Your task to perform on an android device: turn smart compose on in the gmail app Image 0: 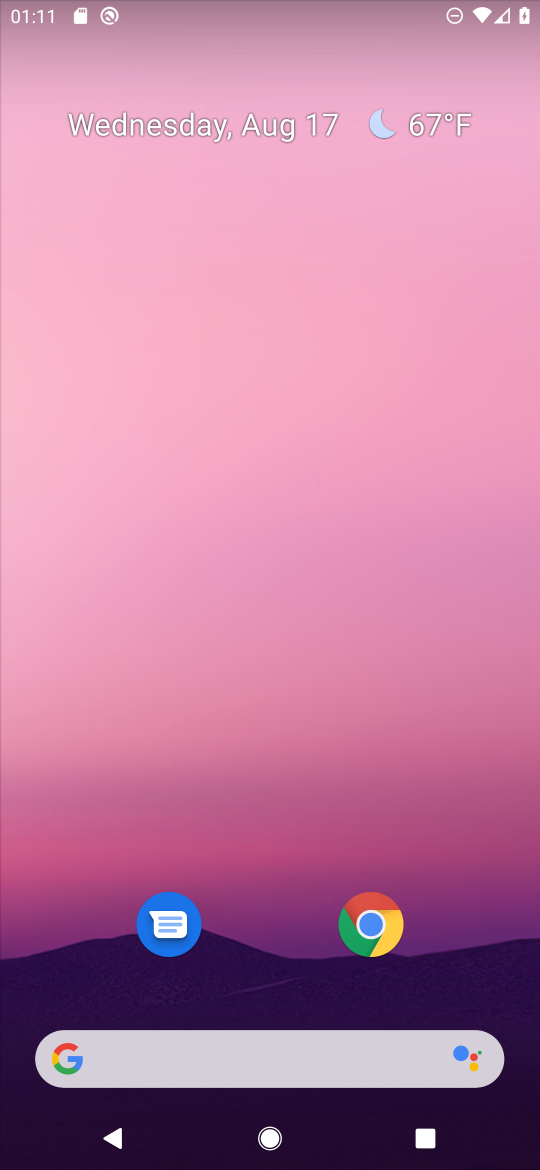
Step 0: drag from (259, 986) to (195, 153)
Your task to perform on an android device: turn smart compose on in the gmail app Image 1: 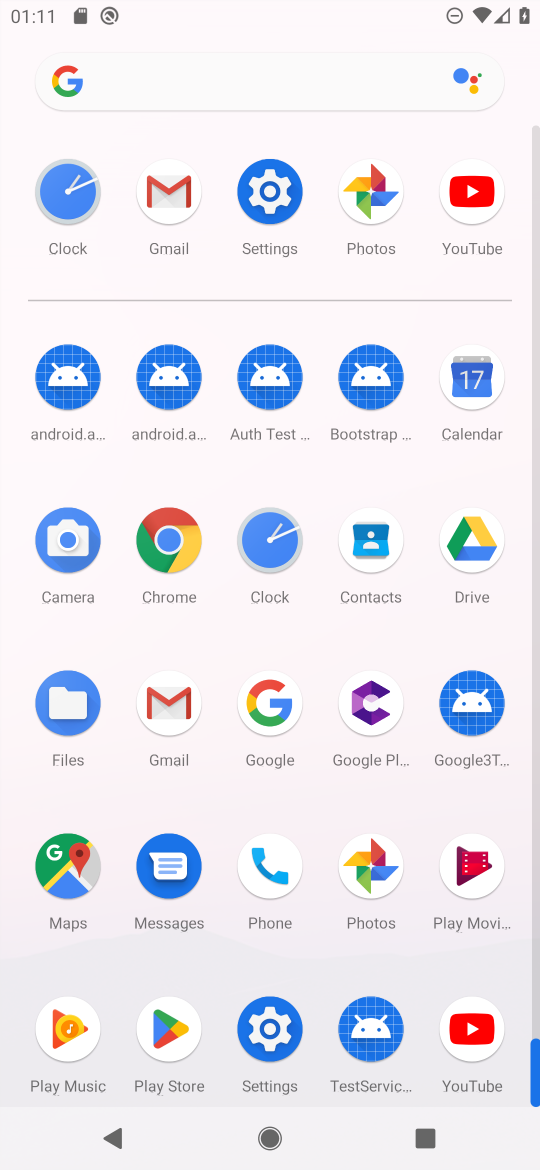
Step 1: click (177, 214)
Your task to perform on an android device: turn smart compose on in the gmail app Image 2: 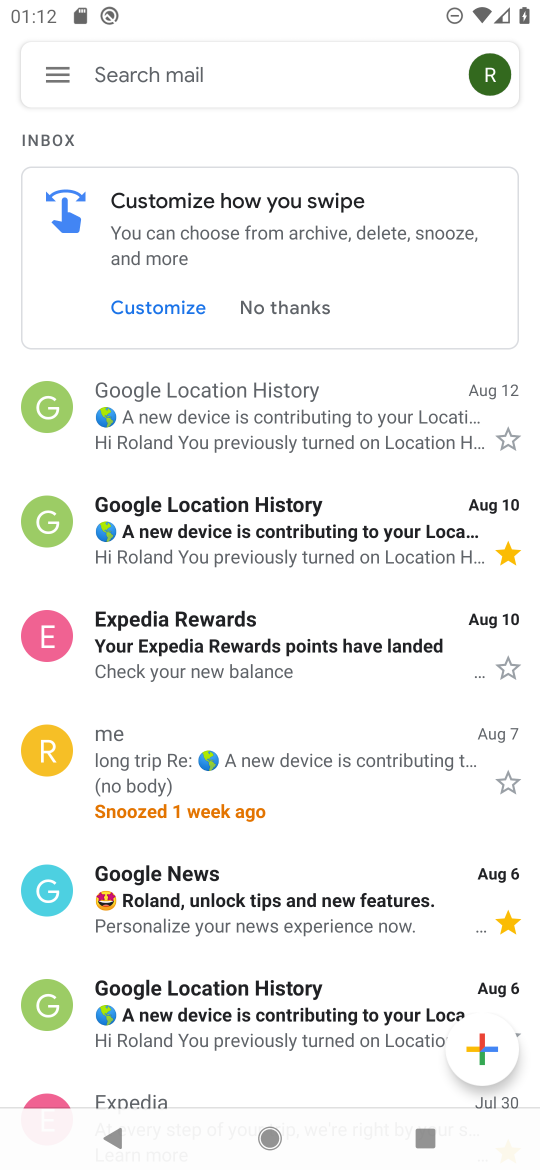
Step 2: click (58, 57)
Your task to perform on an android device: turn smart compose on in the gmail app Image 3: 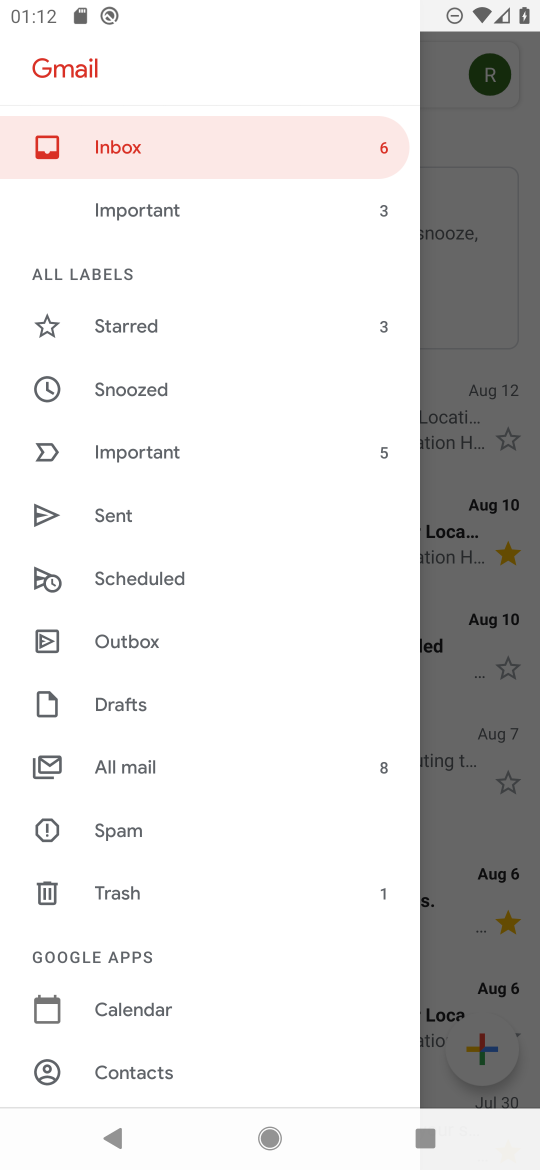
Step 3: drag from (182, 952) to (230, 255)
Your task to perform on an android device: turn smart compose on in the gmail app Image 4: 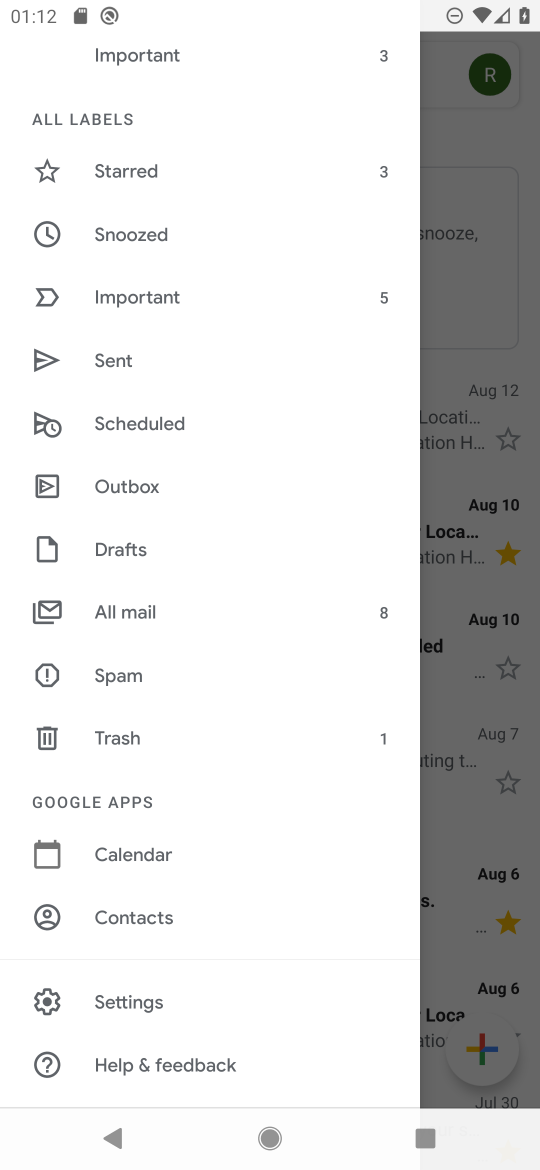
Step 4: click (136, 1012)
Your task to perform on an android device: turn smart compose on in the gmail app Image 5: 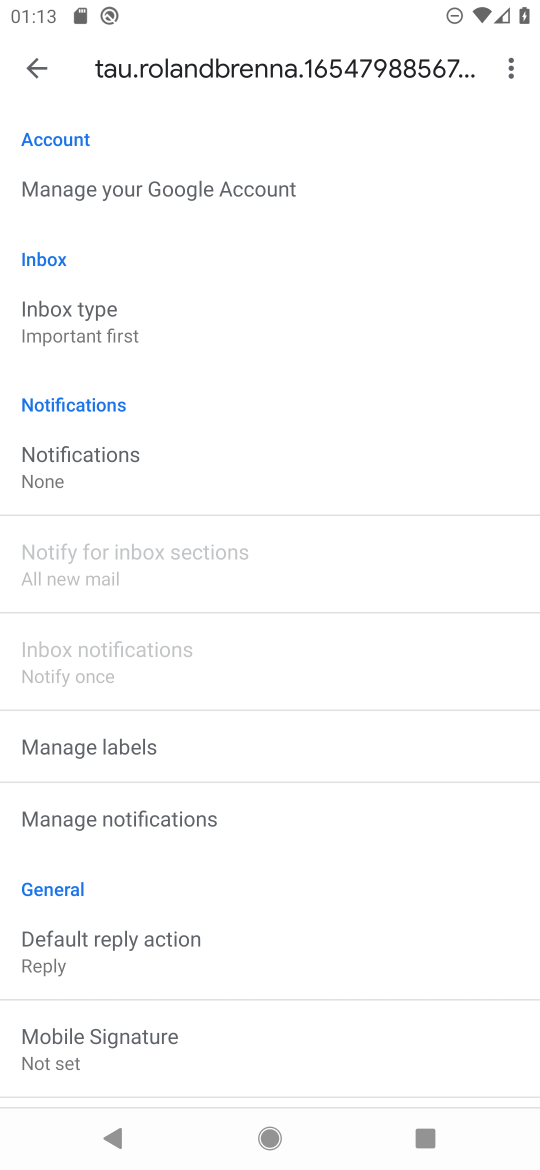
Step 5: task complete